Your task to perform on an android device: see tabs open on other devices in the chrome app Image 0: 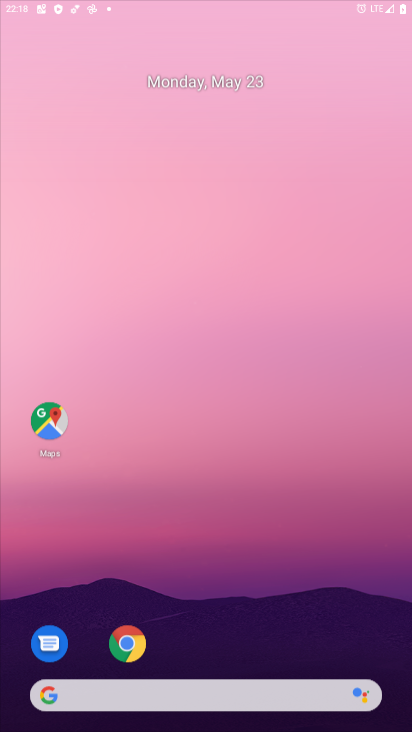
Step 0: click (322, 411)
Your task to perform on an android device: see tabs open on other devices in the chrome app Image 1: 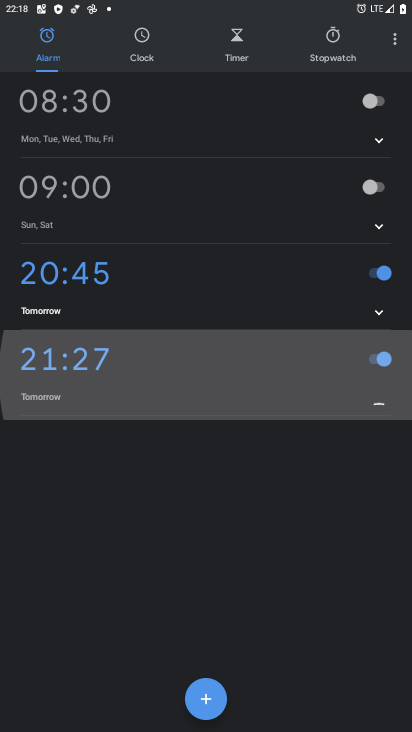
Step 1: task complete